Your task to perform on an android device: Go to Yahoo.com Image 0: 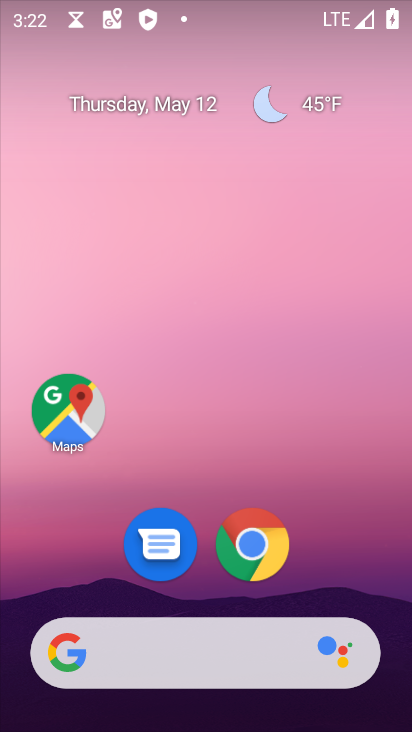
Step 0: click (265, 546)
Your task to perform on an android device: Go to Yahoo.com Image 1: 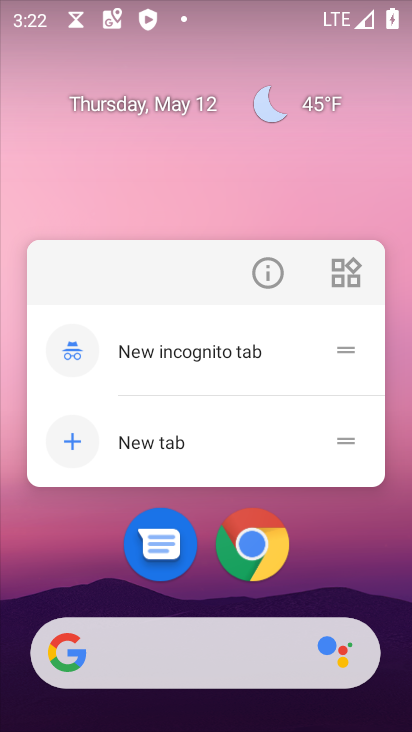
Step 1: click (268, 540)
Your task to perform on an android device: Go to Yahoo.com Image 2: 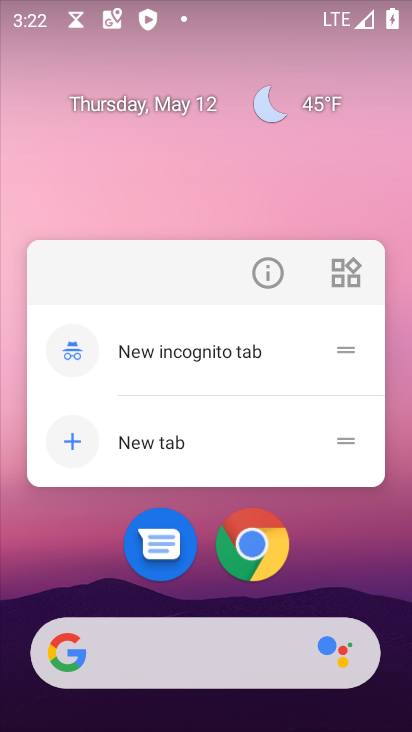
Step 2: click (260, 538)
Your task to perform on an android device: Go to Yahoo.com Image 3: 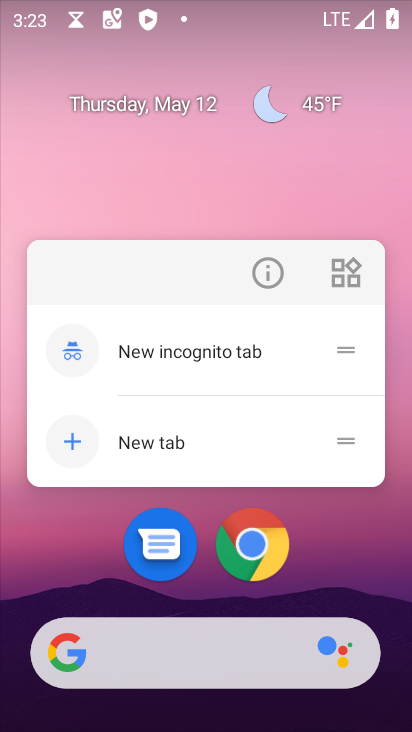
Step 3: click (260, 538)
Your task to perform on an android device: Go to Yahoo.com Image 4: 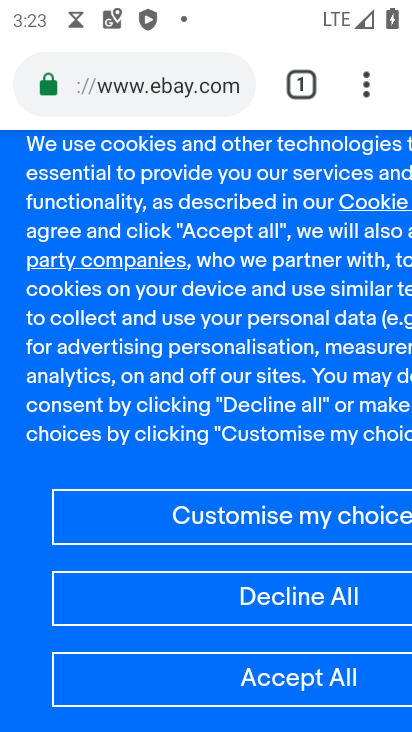
Step 4: click (153, 99)
Your task to perform on an android device: Go to Yahoo.com Image 5: 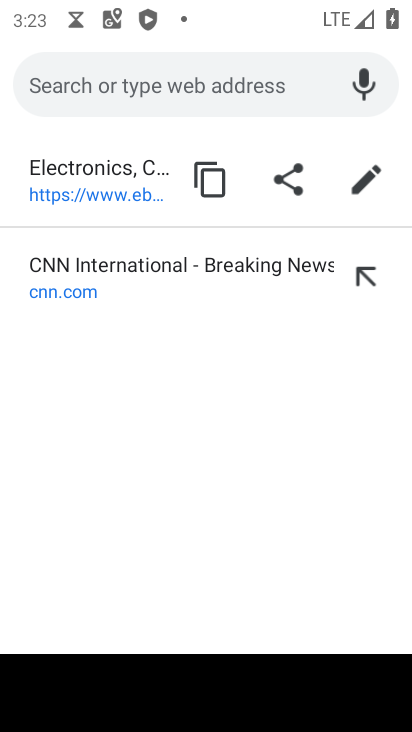
Step 5: type "yahoo.com"
Your task to perform on an android device: Go to Yahoo.com Image 6: 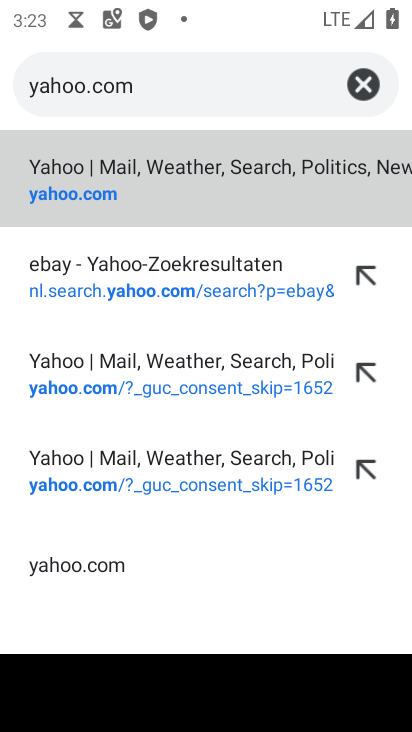
Step 6: click (57, 171)
Your task to perform on an android device: Go to Yahoo.com Image 7: 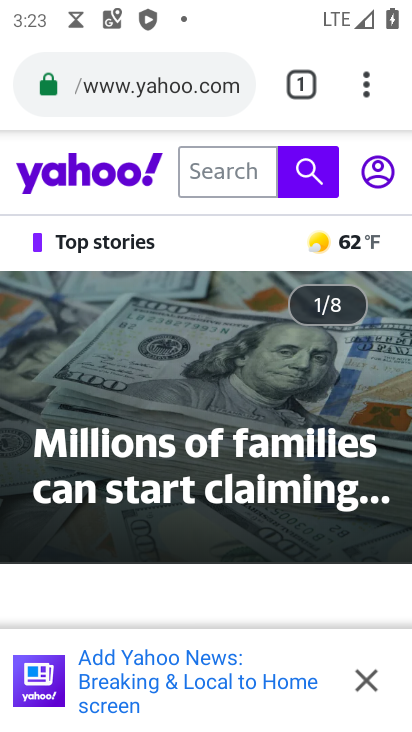
Step 7: task complete